Your task to perform on an android device: Open the calendar app, open the side menu, and click the "Day" option Image 0: 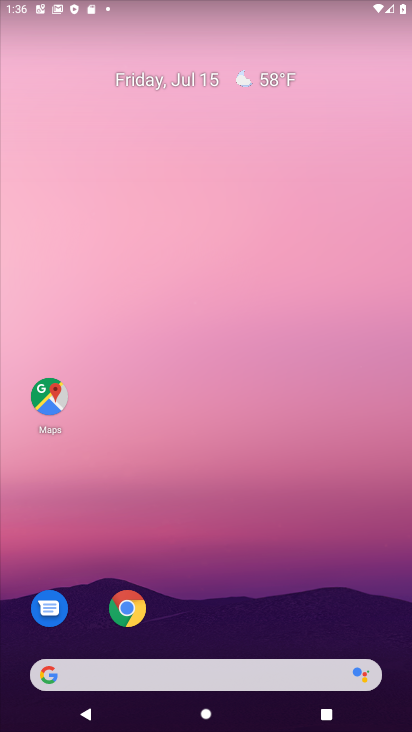
Step 0: drag from (248, 578) to (255, 63)
Your task to perform on an android device: Open the calendar app, open the side menu, and click the "Day" option Image 1: 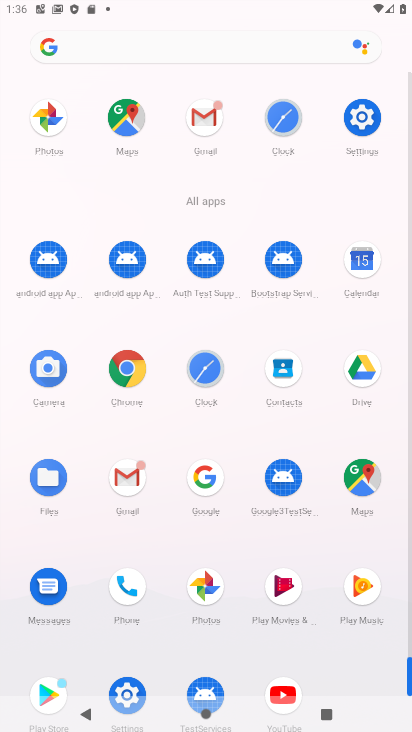
Step 1: click (352, 259)
Your task to perform on an android device: Open the calendar app, open the side menu, and click the "Day" option Image 2: 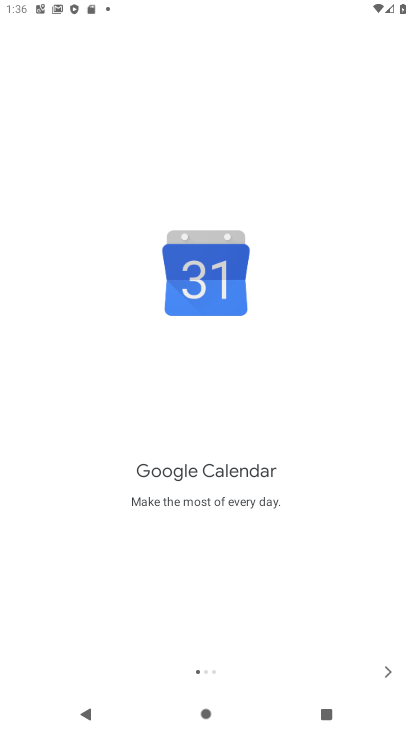
Step 2: click (377, 666)
Your task to perform on an android device: Open the calendar app, open the side menu, and click the "Day" option Image 3: 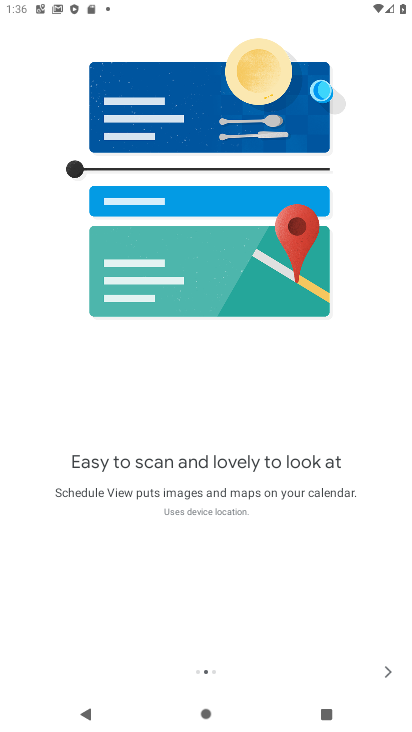
Step 3: click (377, 666)
Your task to perform on an android device: Open the calendar app, open the side menu, and click the "Day" option Image 4: 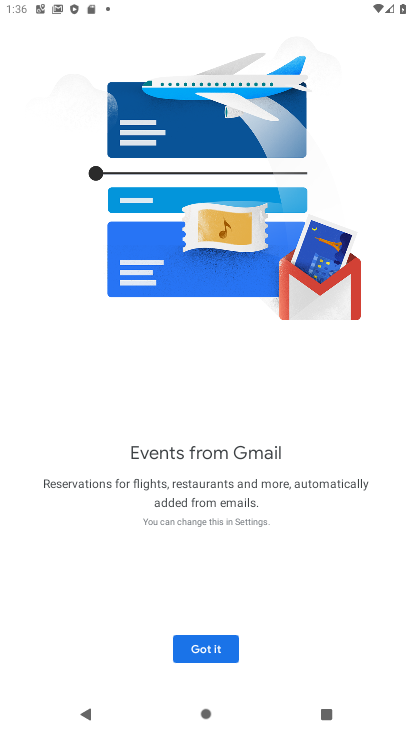
Step 4: click (213, 655)
Your task to perform on an android device: Open the calendar app, open the side menu, and click the "Day" option Image 5: 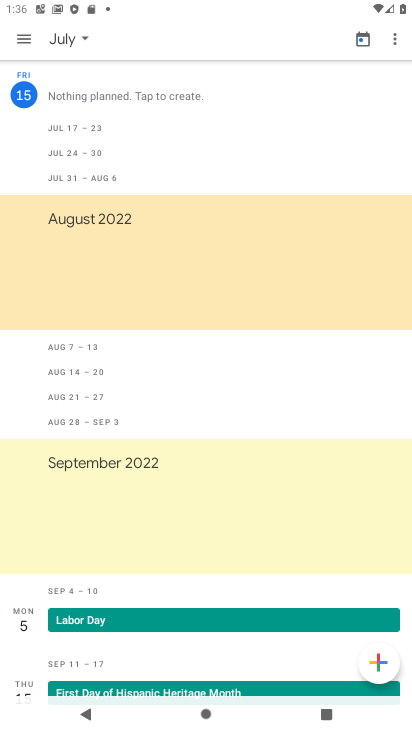
Step 5: click (28, 36)
Your task to perform on an android device: Open the calendar app, open the side menu, and click the "Day" option Image 6: 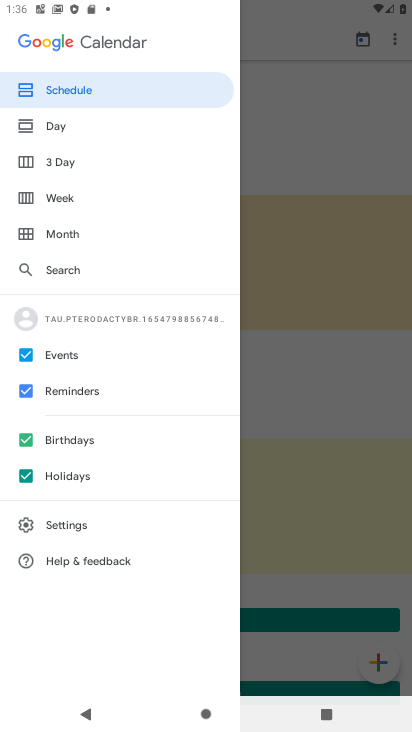
Step 6: click (51, 122)
Your task to perform on an android device: Open the calendar app, open the side menu, and click the "Day" option Image 7: 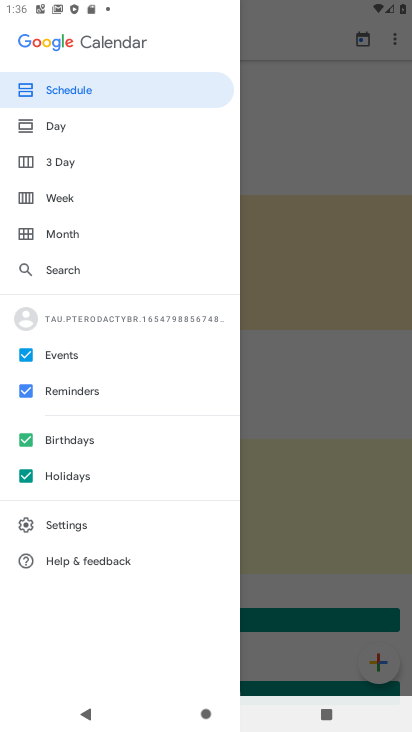
Step 7: click (49, 121)
Your task to perform on an android device: Open the calendar app, open the side menu, and click the "Day" option Image 8: 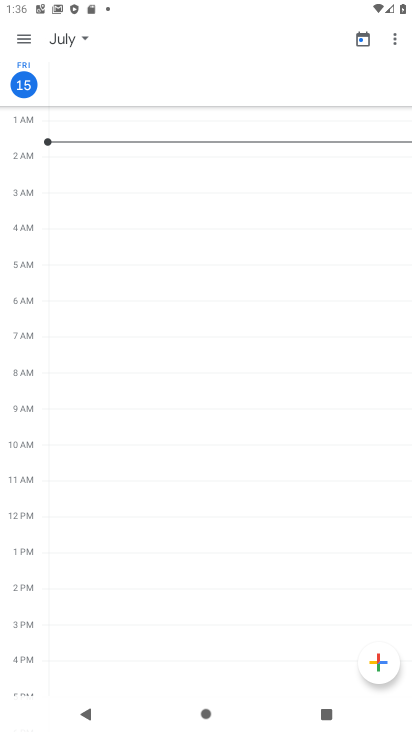
Step 8: task complete